Your task to perform on an android device: Open the phone app and click the voicemail tab. Image 0: 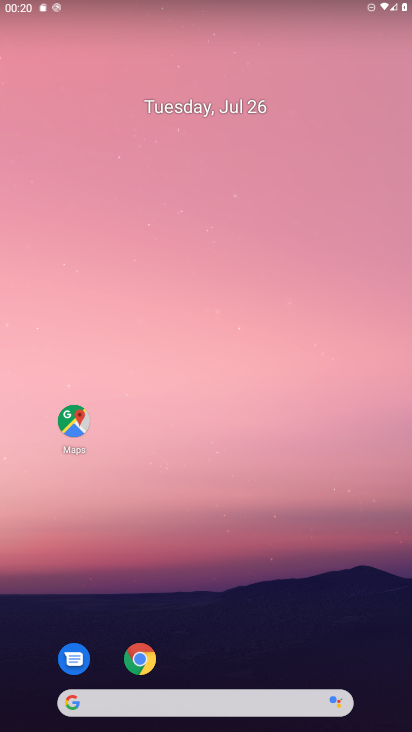
Step 0: drag from (311, 150) to (309, 91)
Your task to perform on an android device: Open the phone app and click the voicemail tab. Image 1: 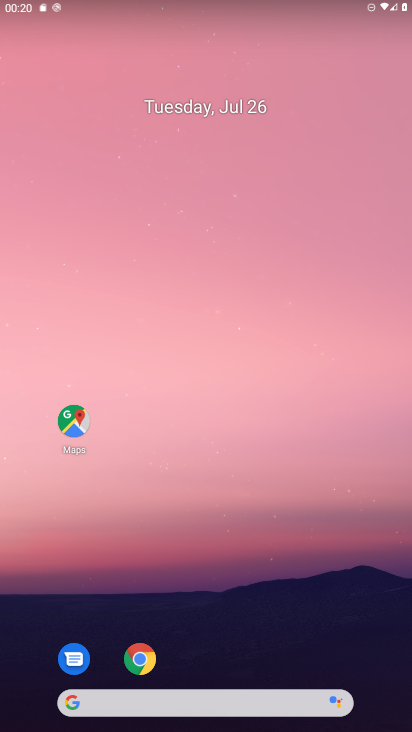
Step 1: drag from (289, 658) to (366, 61)
Your task to perform on an android device: Open the phone app and click the voicemail tab. Image 2: 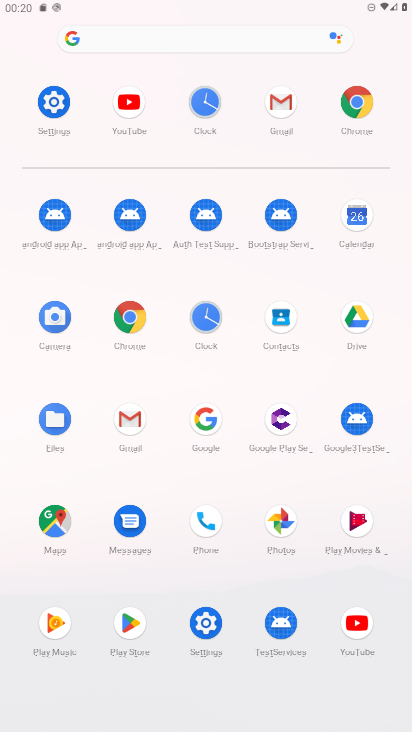
Step 2: click (211, 531)
Your task to perform on an android device: Open the phone app and click the voicemail tab. Image 3: 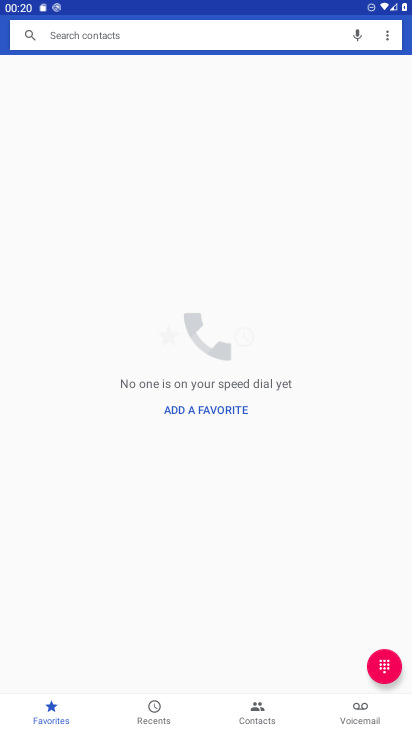
Step 3: click (356, 707)
Your task to perform on an android device: Open the phone app and click the voicemail tab. Image 4: 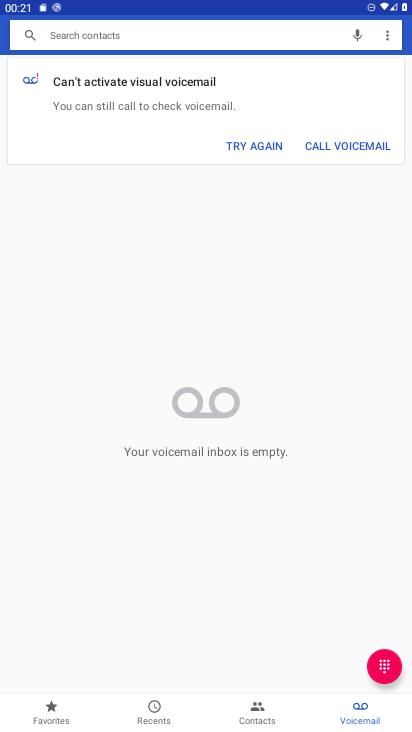
Step 4: task complete